Your task to perform on an android device: Go to notification settings Image 0: 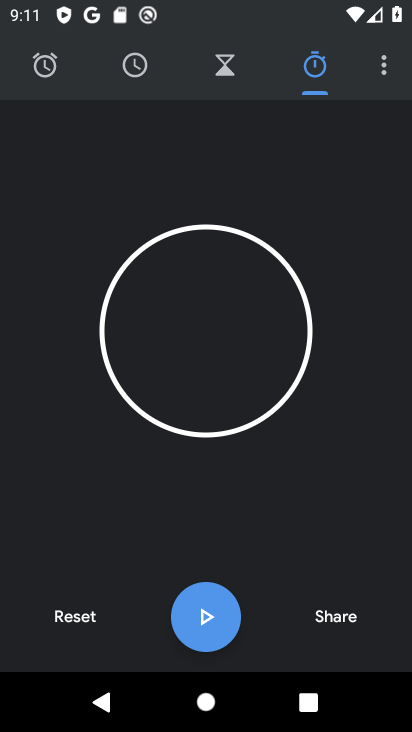
Step 0: press home button
Your task to perform on an android device: Go to notification settings Image 1: 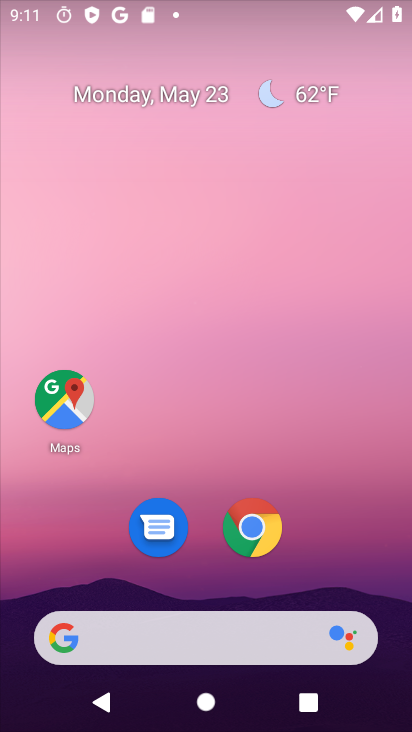
Step 1: drag from (309, 532) to (248, 92)
Your task to perform on an android device: Go to notification settings Image 2: 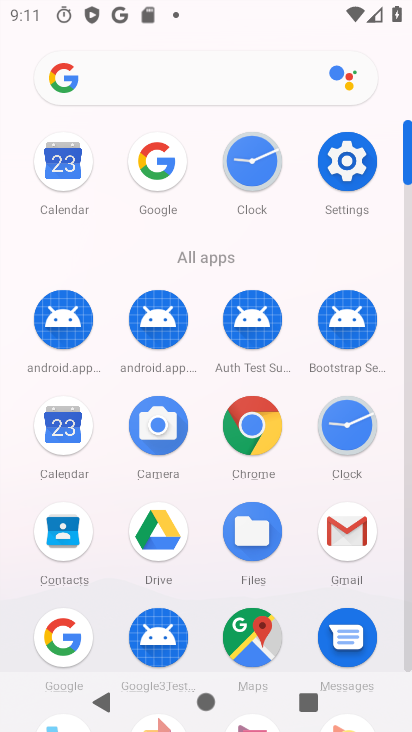
Step 2: click (342, 180)
Your task to perform on an android device: Go to notification settings Image 3: 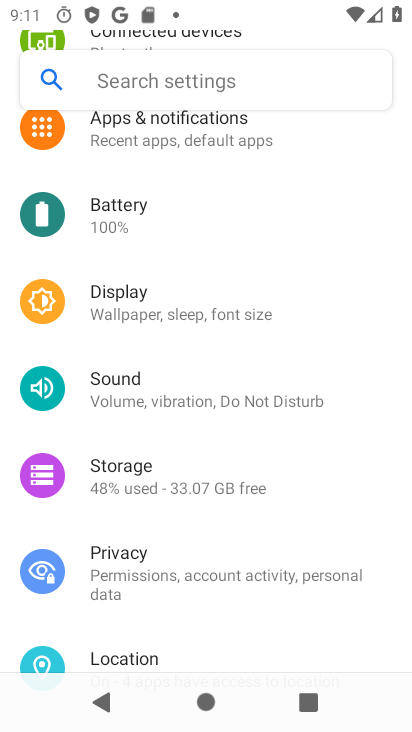
Step 3: click (224, 125)
Your task to perform on an android device: Go to notification settings Image 4: 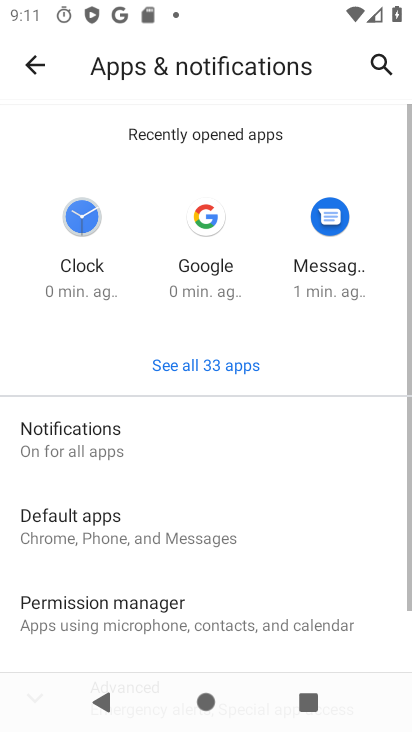
Step 4: click (107, 449)
Your task to perform on an android device: Go to notification settings Image 5: 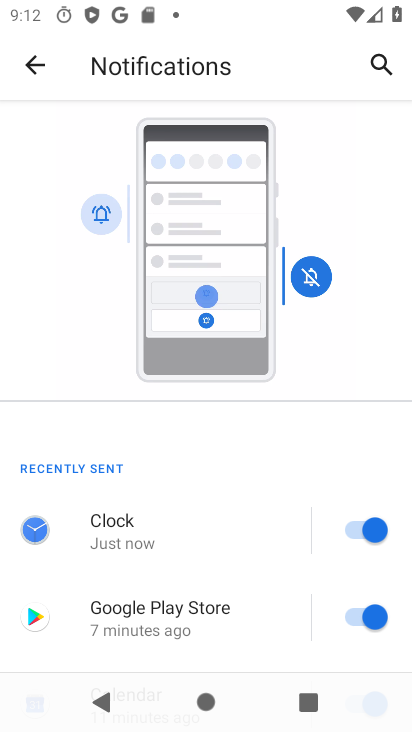
Step 5: task complete